Your task to perform on an android device: Search for a sofa on article.com Image 0: 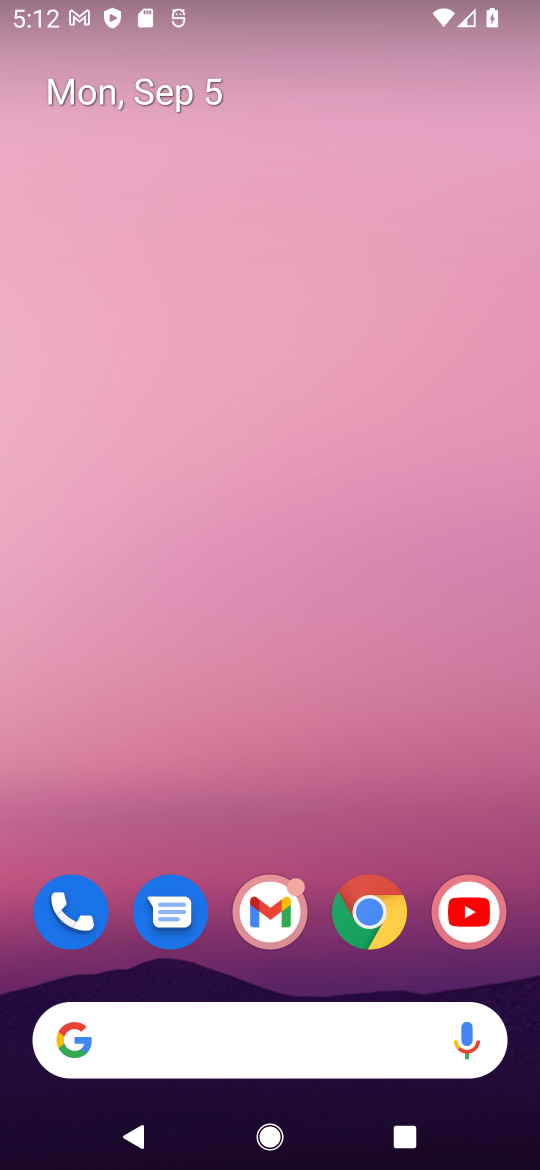
Step 0: click (380, 932)
Your task to perform on an android device: Search for a sofa on article.com Image 1: 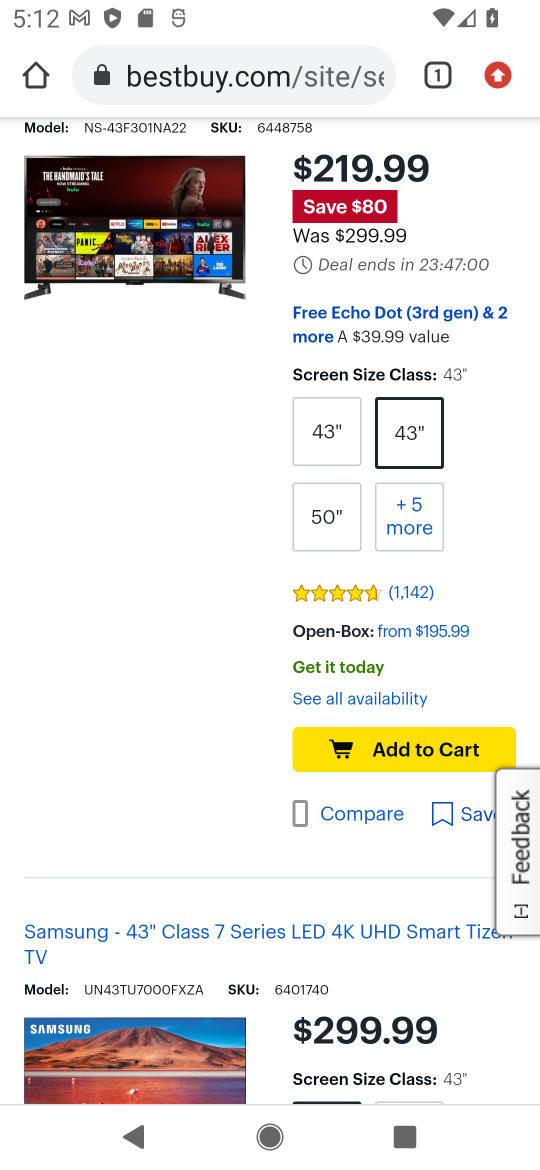
Step 1: click (269, 88)
Your task to perform on an android device: Search for a sofa on article.com Image 2: 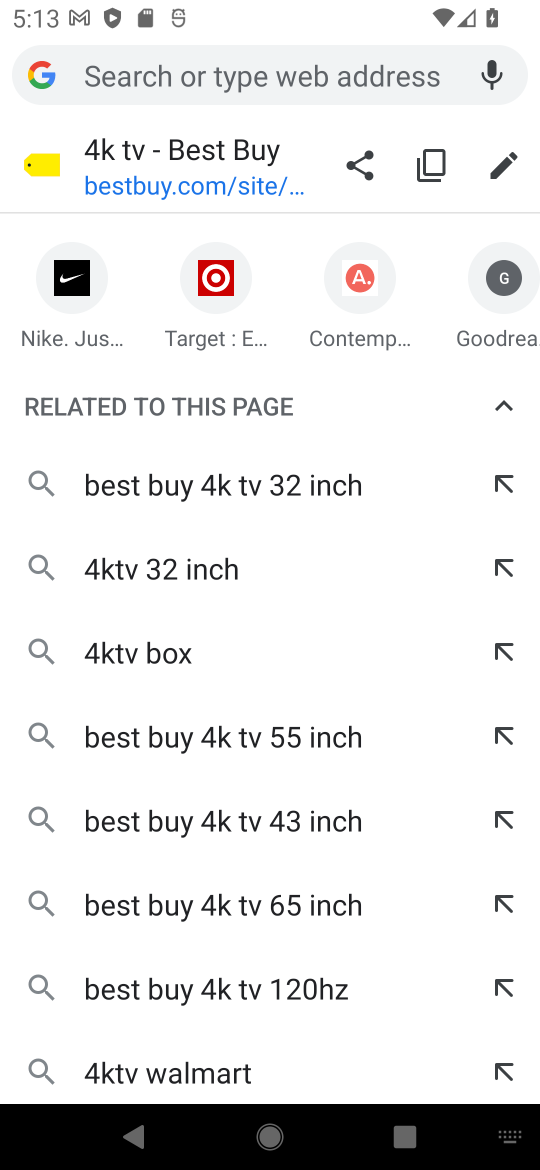
Step 2: type "article.com"
Your task to perform on an android device: Search for a sofa on article.com Image 3: 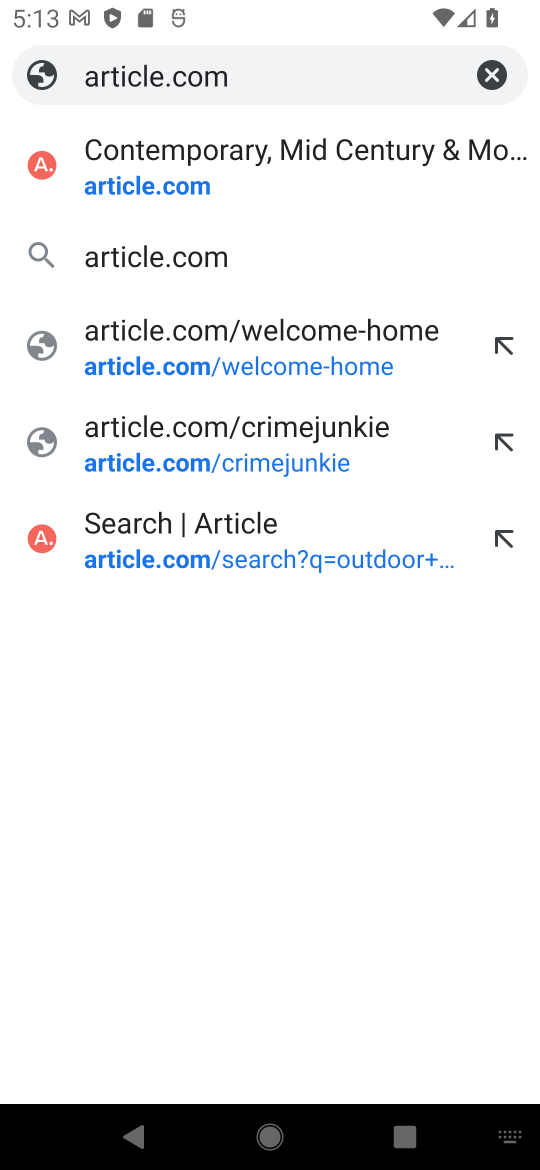
Step 3: press enter
Your task to perform on an android device: Search for a sofa on article.com Image 4: 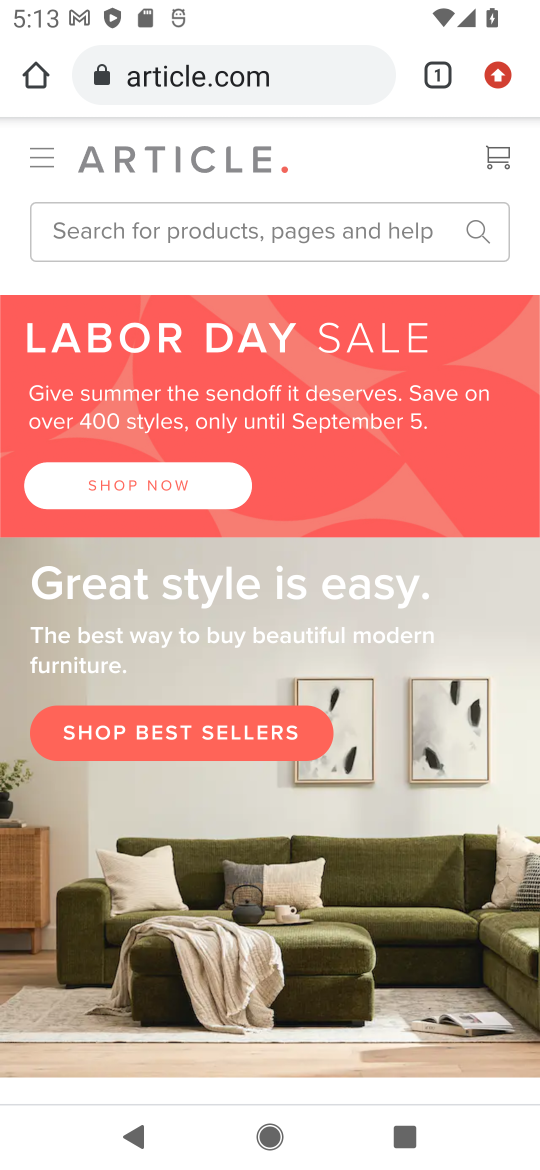
Step 4: click (285, 191)
Your task to perform on an android device: Search for a sofa on article.com Image 5: 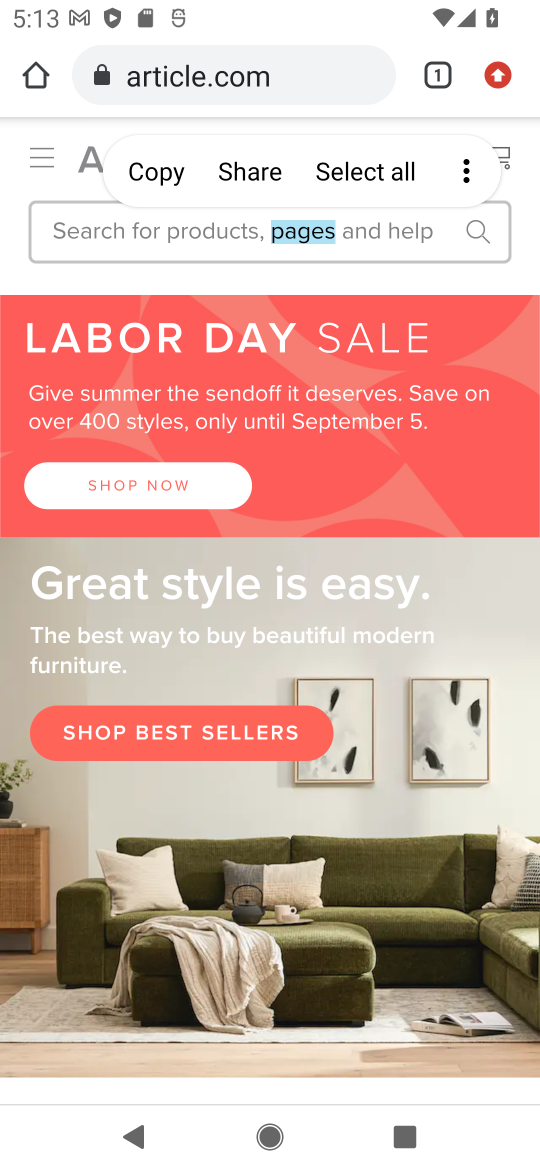
Step 5: click (285, 224)
Your task to perform on an android device: Search for a sofa on article.com Image 6: 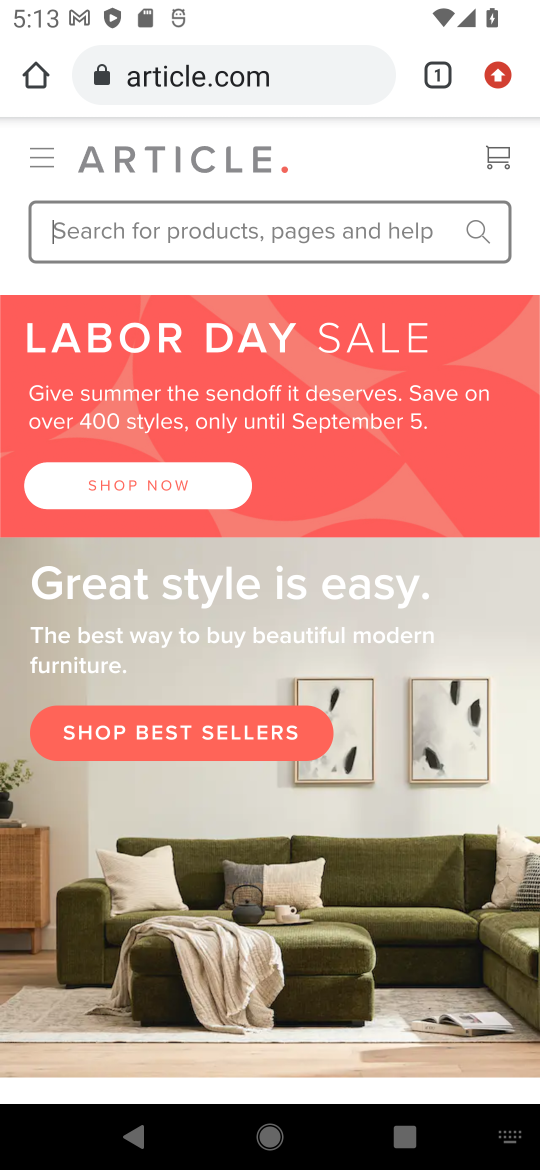
Step 6: click (91, 231)
Your task to perform on an android device: Search for a sofa on article.com Image 7: 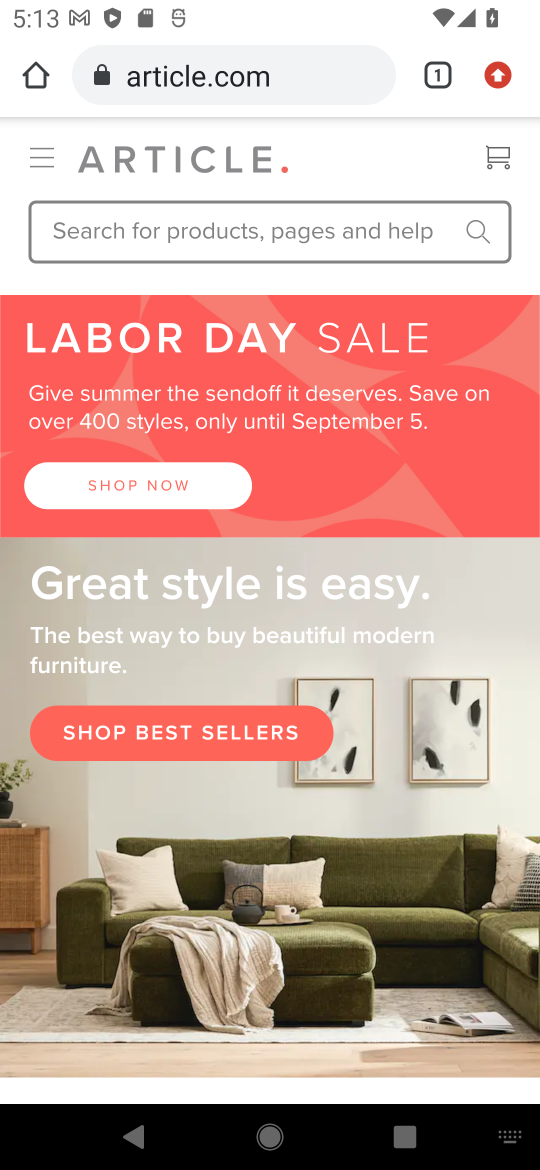
Step 7: type "sofa"
Your task to perform on an android device: Search for a sofa on article.com Image 8: 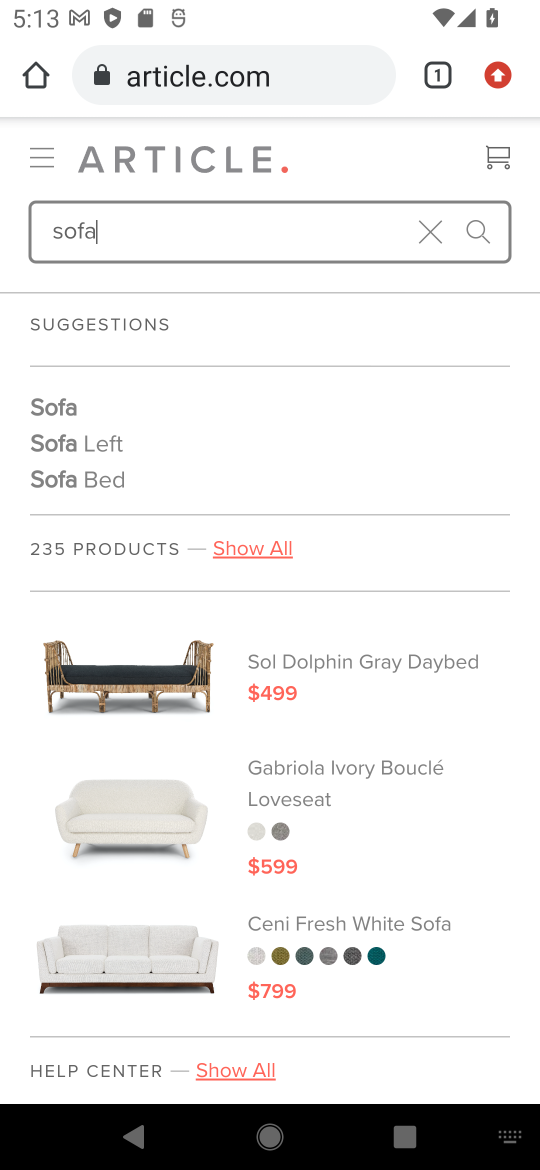
Step 8: task complete